Your task to perform on an android device: Go to internet settings Image 0: 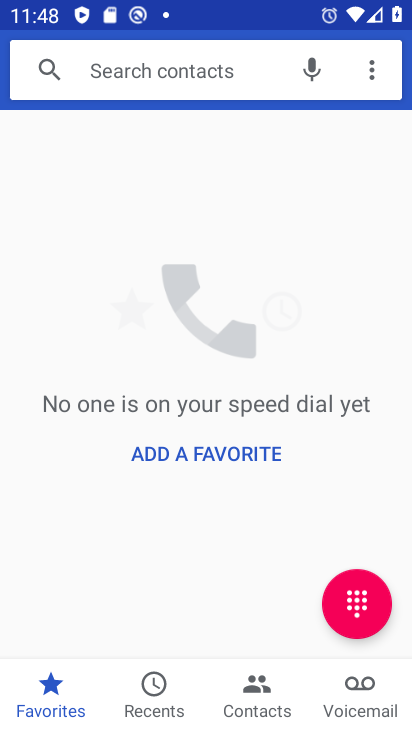
Step 0: press home button
Your task to perform on an android device: Go to internet settings Image 1: 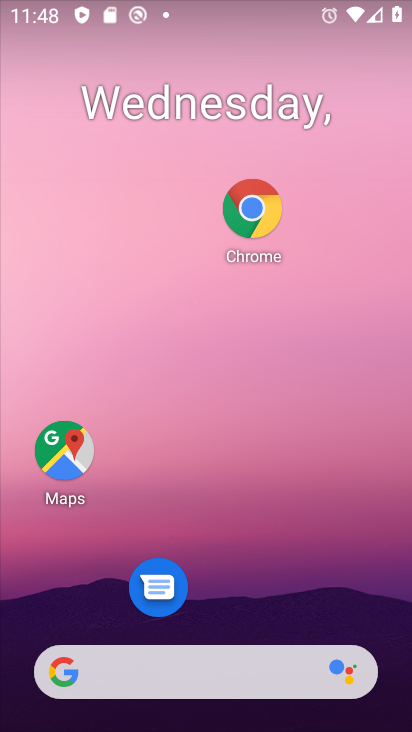
Step 1: drag from (213, 618) to (216, 72)
Your task to perform on an android device: Go to internet settings Image 2: 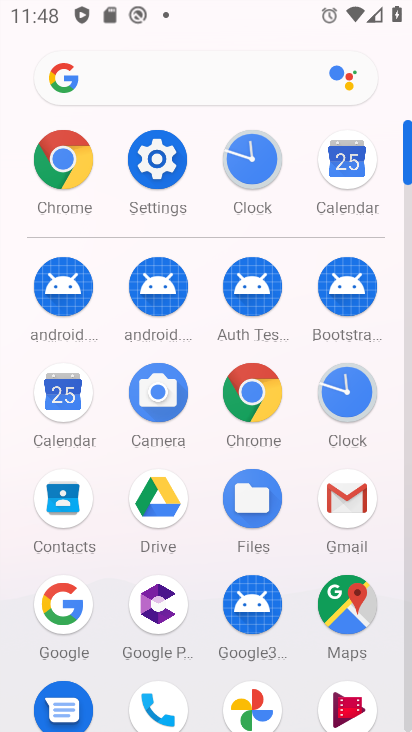
Step 2: click (166, 171)
Your task to perform on an android device: Go to internet settings Image 3: 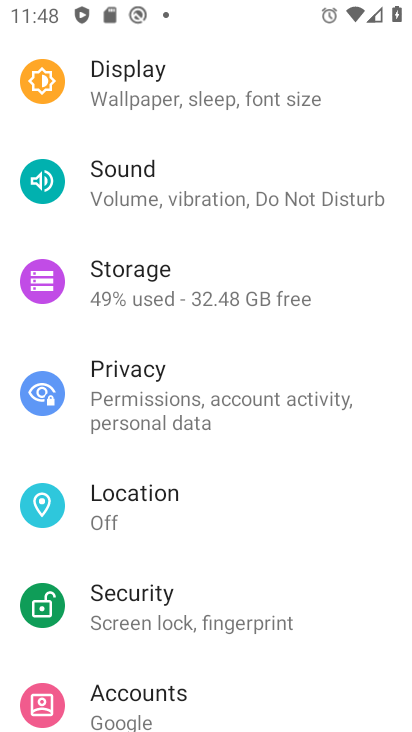
Step 3: drag from (165, 182) to (120, 671)
Your task to perform on an android device: Go to internet settings Image 4: 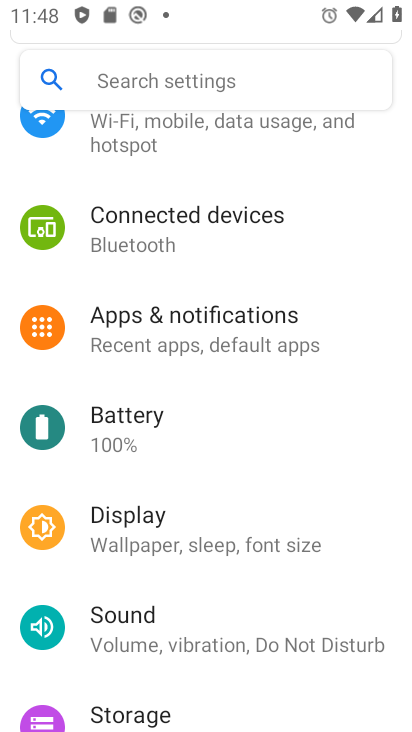
Step 4: drag from (148, 131) to (148, 727)
Your task to perform on an android device: Go to internet settings Image 5: 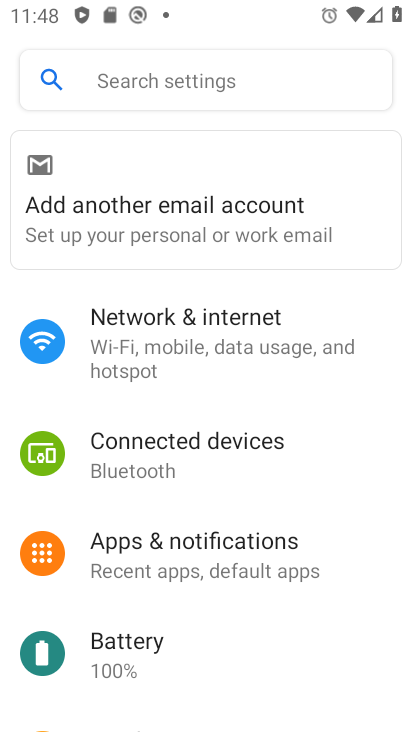
Step 5: click (120, 359)
Your task to perform on an android device: Go to internet settings Image 6: 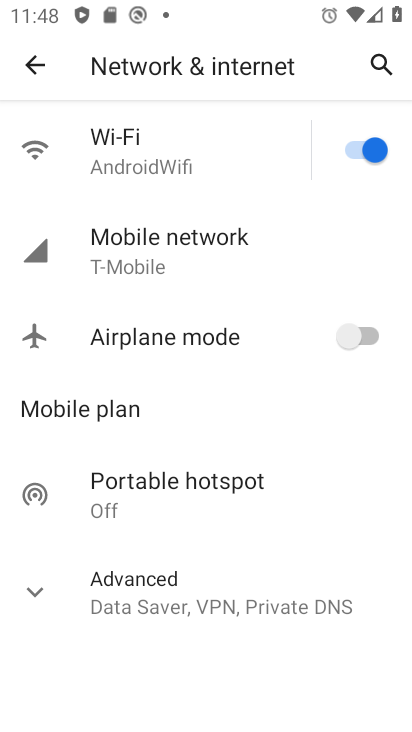
Step 6: task complete